Your task to perform on an android device: change notification settings in the gmail app Image 0: 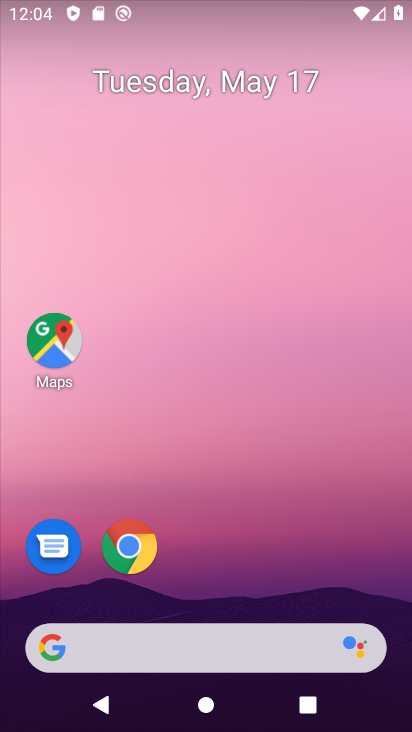
Step 0: drag from (303, 573) to (311, 79)
Your task to perform on an android device: change notification settings in the gmail app Image 1: 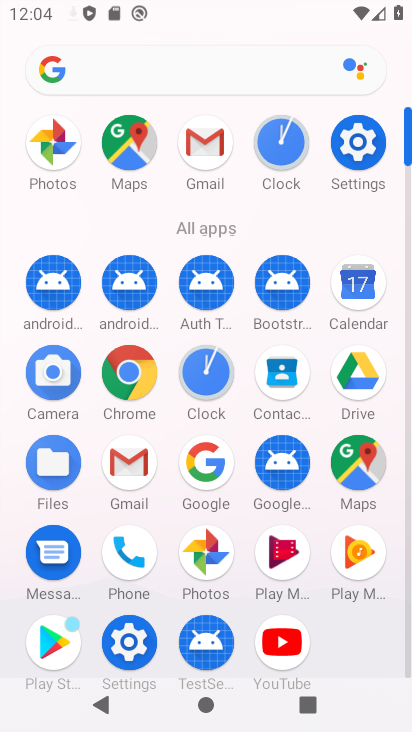
Step 1: click (209, 143)
Your task to perform on an android device: change notification settings in the gmail app Image 2: 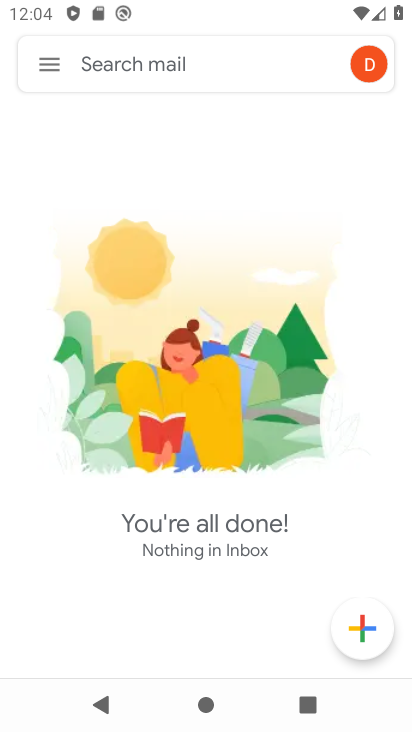
Step 2: click (43, 64)
Your task to perform on an android device: change notification settings in the gmail app Image 3: 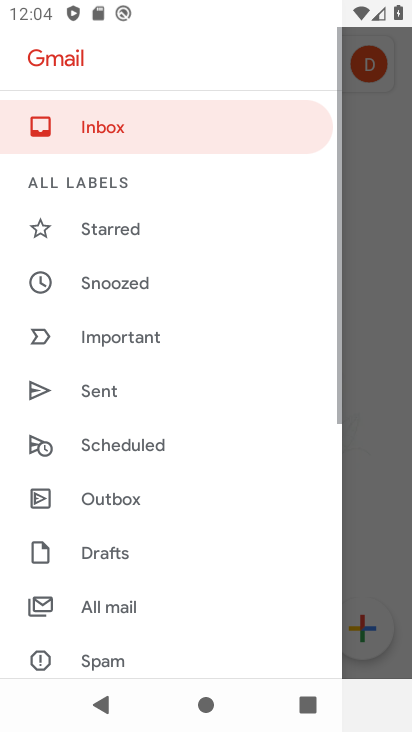
Step 3: drag from (168, 629) to (203, 267)
Your task to perform on an android device: change notification settings in the gmail app Image 4: 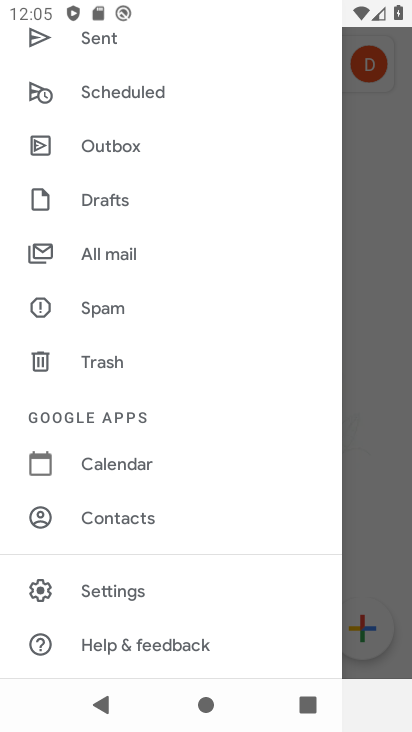
Step 4: click (136, 586)
Your task to perform on an android device: change notification settings in the gmail app Image 5: 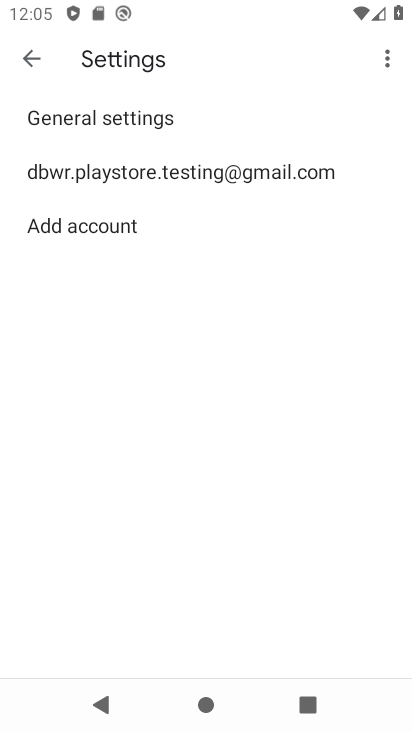
Step 5: click (110, 180)
Your task to perform on an android device: change notification settings in the gmail app Image 6: 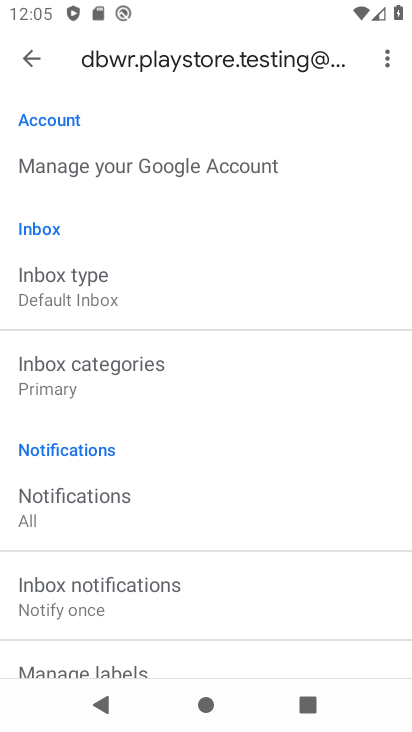
Step 6: drag from (147, 613) to (120, 474)
Your task to perform on an android device: change notification settings in the gmail app Image 7: 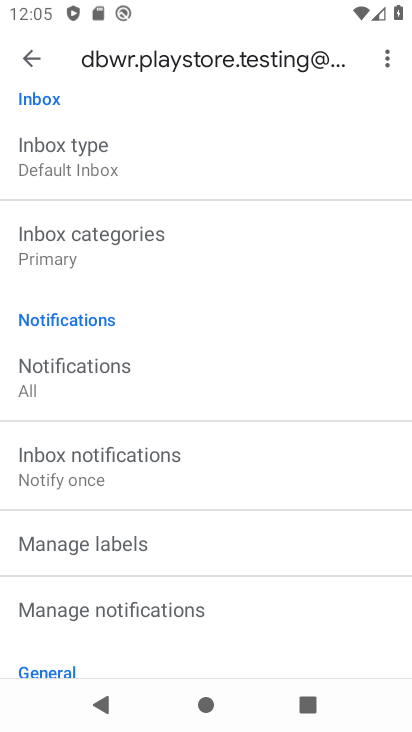
Step 7: click (90, 381)
Your task to perform on an android device: change notification settings in the gmail app Image 8: 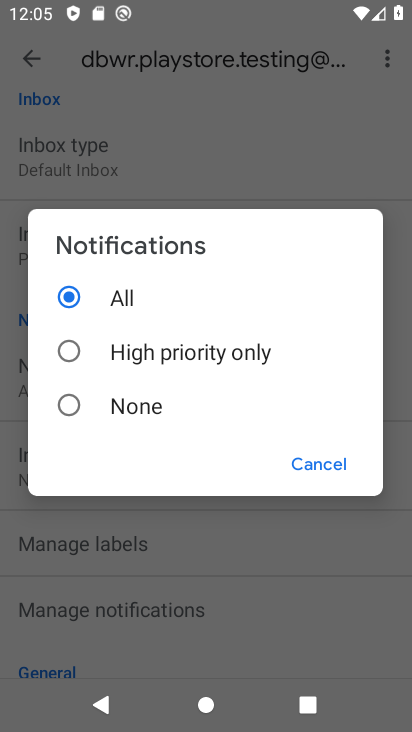
Step 8: click (91, 351)
Your task to perform on an android device: change notification settings in the gmail app Image 9: 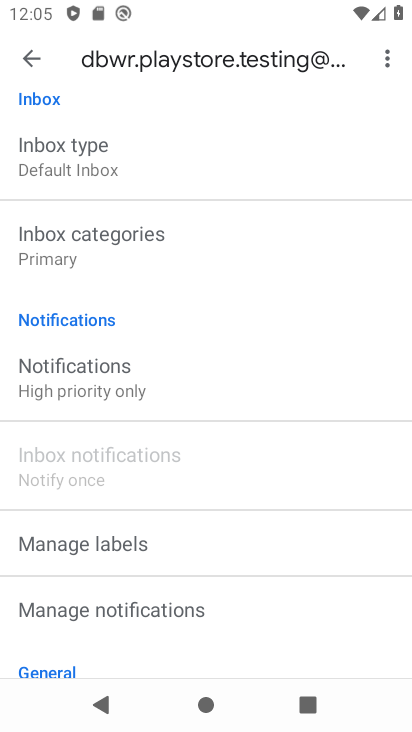
Step 9: task complete